Your task to perform on an android device: Go to privacy settings Image 0: 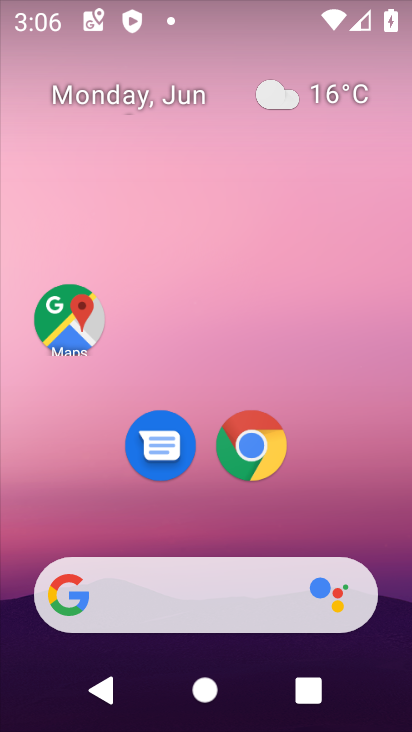
Step 0: drag from (326, 508) to (333, 205)
Your task to perform on an android device: Go to privacy settings Image 1: 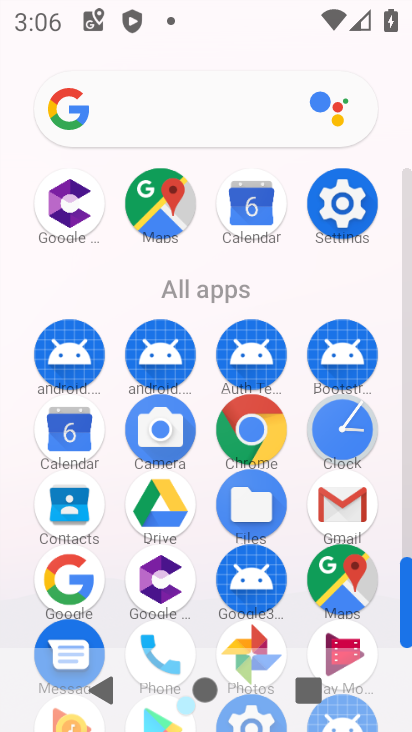
Step 1: click (339, 208)
Your task to perform on an android device: Go to privacy settings Image 2: 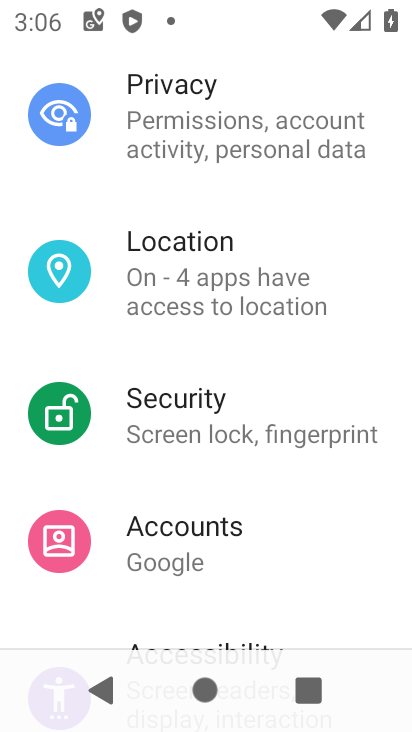
Step 2: click (168, 126)
Your task to perform on an android device: Go to privacy settings Image 3: 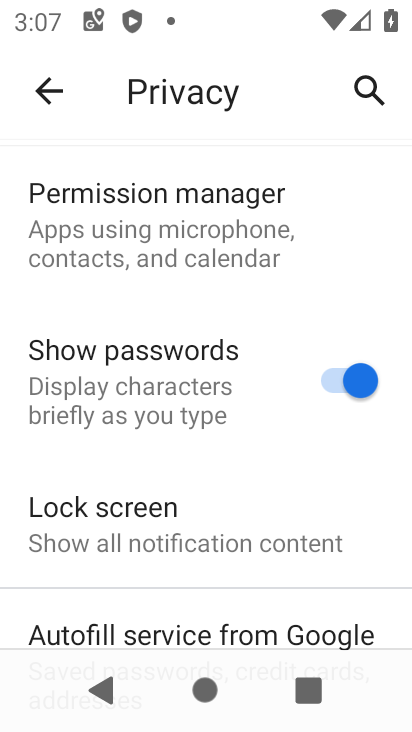
Step 3: task complete